Your task to perform on an android device: Open Chrome and go to settings Image 0: 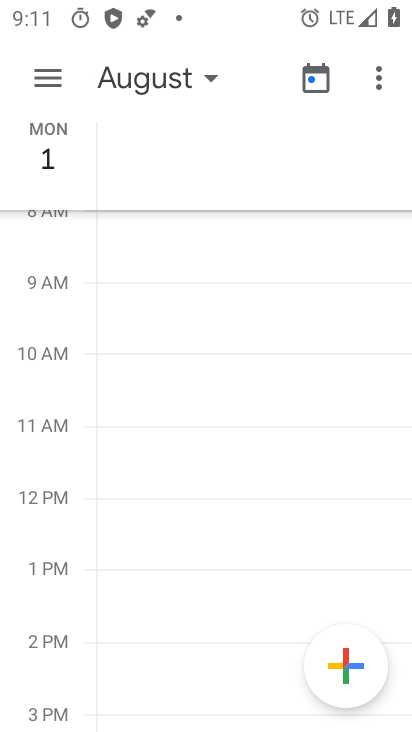
Step 0: press home button
Your task to perform on an android device: Open Chrome and go to settings Image 1: 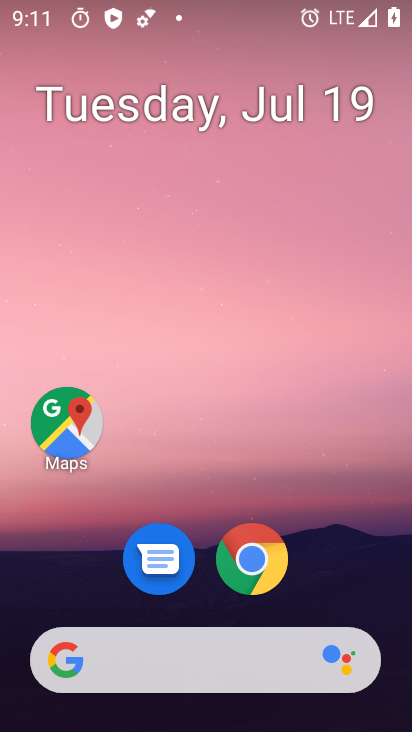
Step 1: drag from (392, 598) to (390, 159)
Your task to perform on an android device: Open Chrome and go to settings Image 2: 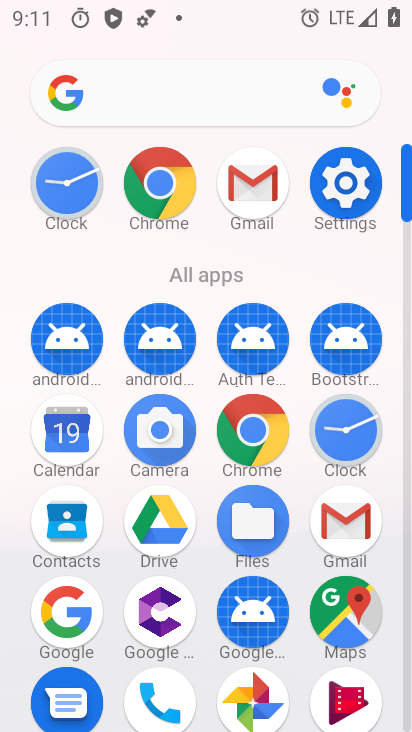
Step 2: click (181, 190)
Your task to perform on an android device: Open Chrome and go to settings Image 3: 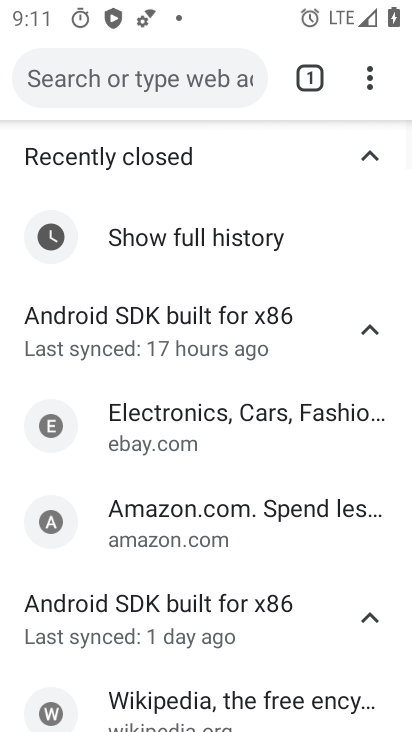
Step 3: click (379, 91)
Your task to perform on an android device: Open Chrome and go to settings Image 4: 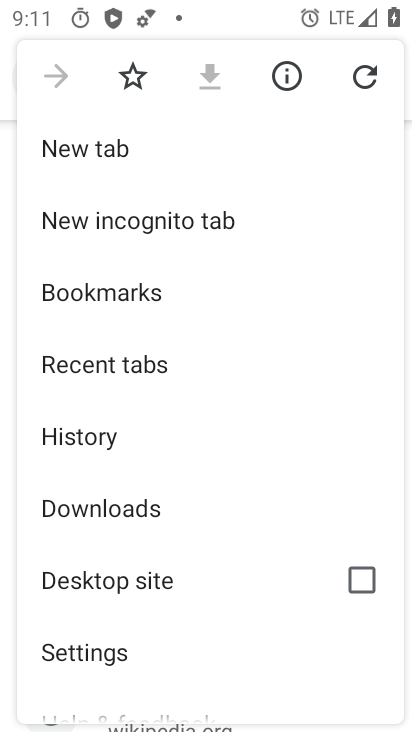
Step 4: click (109, 636)
Your task to perform on an android device: Open Chrome and go to settings Image 5: 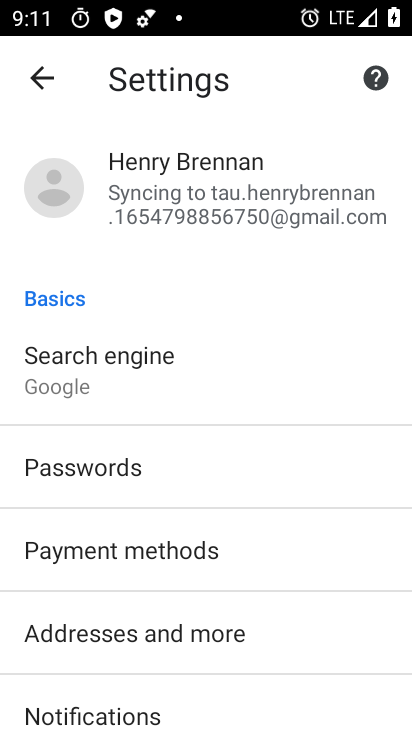
Step 5: task complete